Your task to perform on an android device: Set an alarm for 11am Image 0: 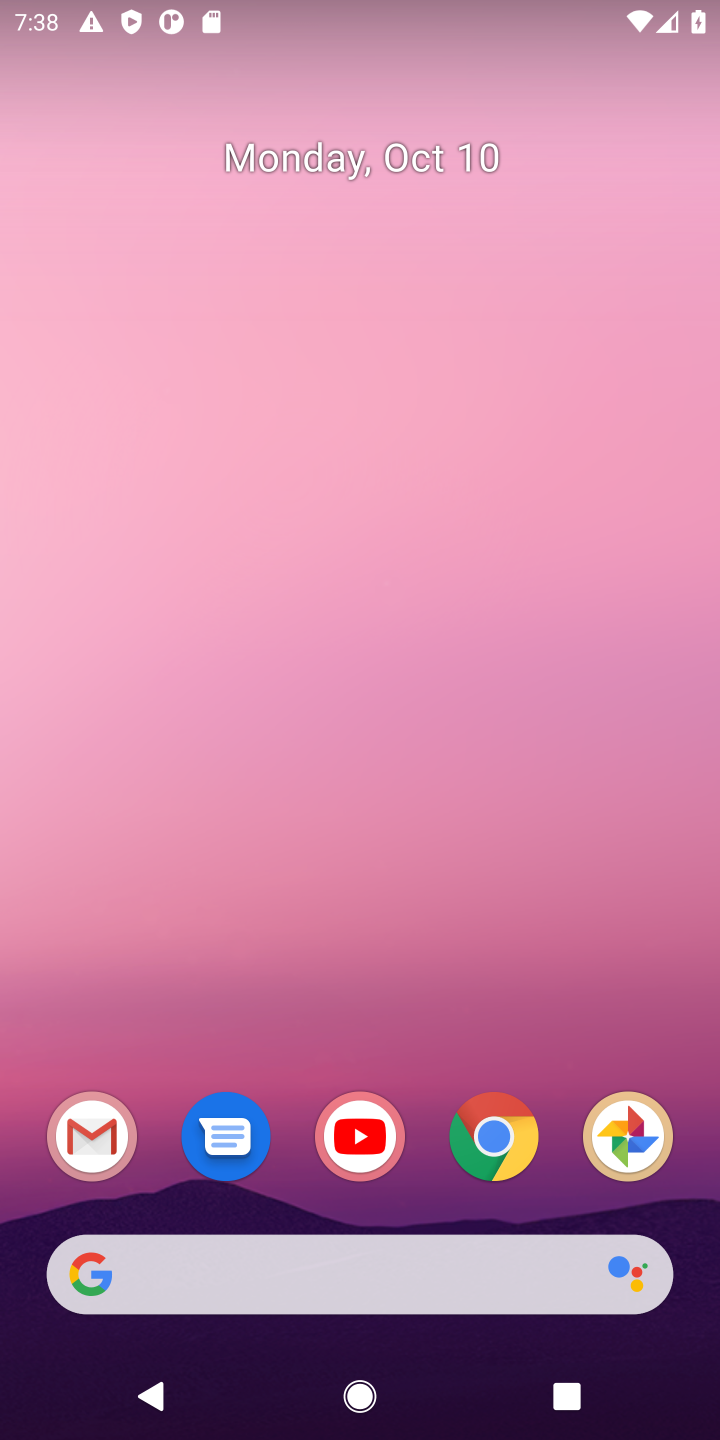
Step 0: drag from (443, 1228) to (381, 9)
Your task to perform on an android device: Set an alarm for 11am Image 1: 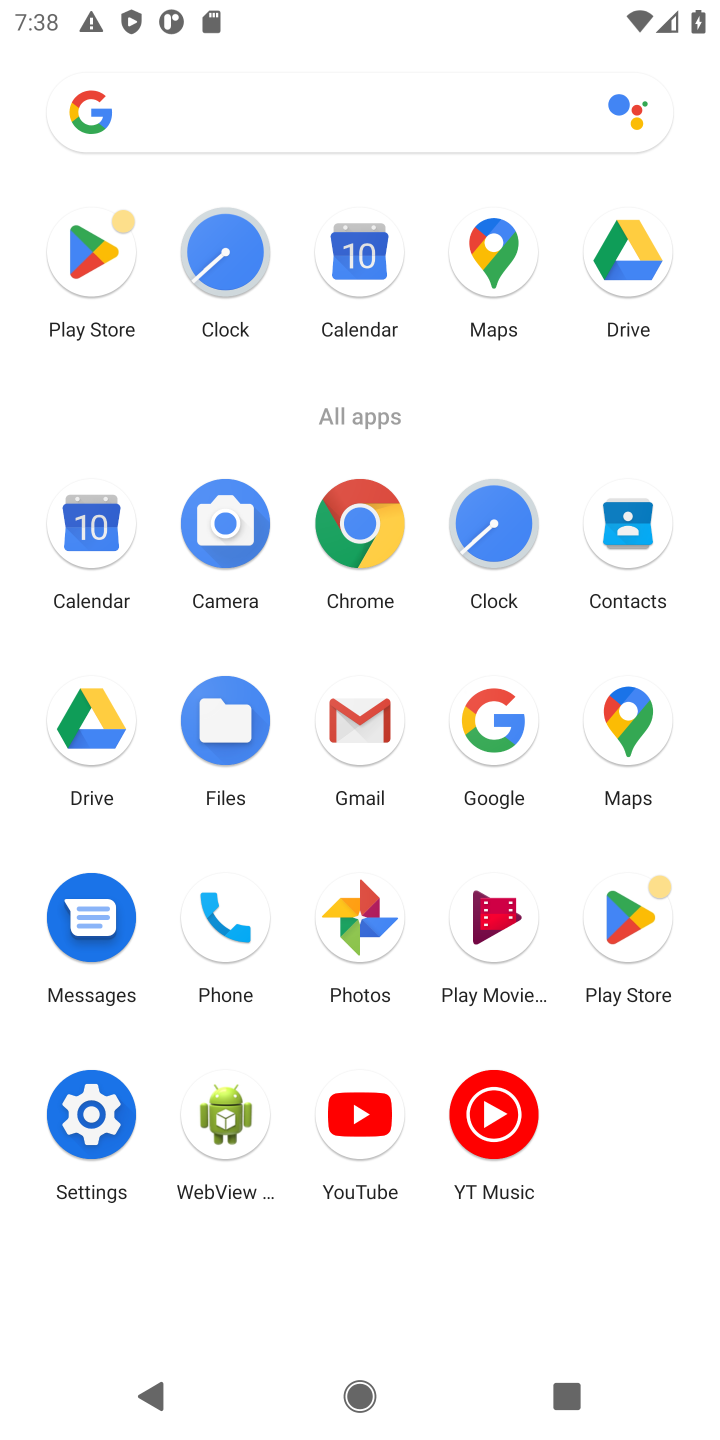
Step 1: click (485, 522)
Your task to perform on an android device: Set an alarm for 11am Image 2: 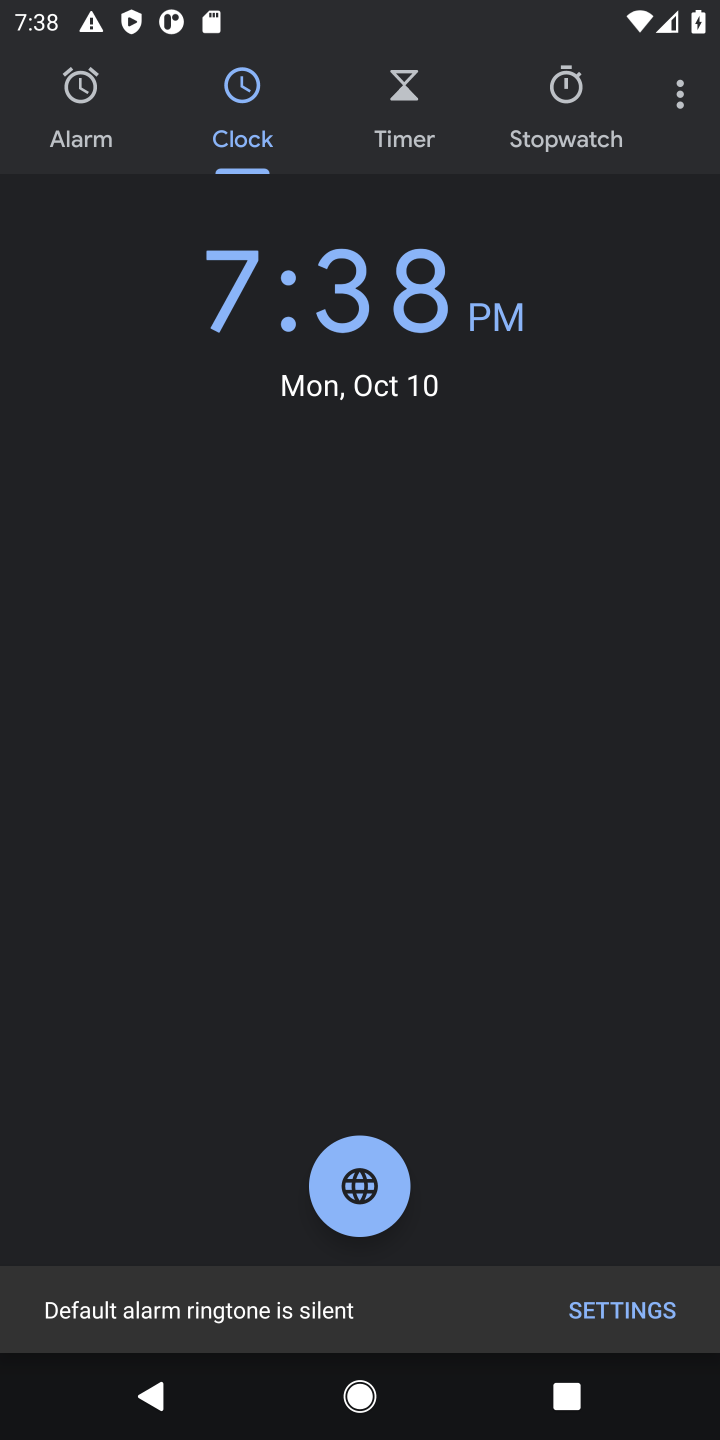
Step 2: click (83, 78)
Your task to perform on an android device: Set an alarm for 11am Image 3: 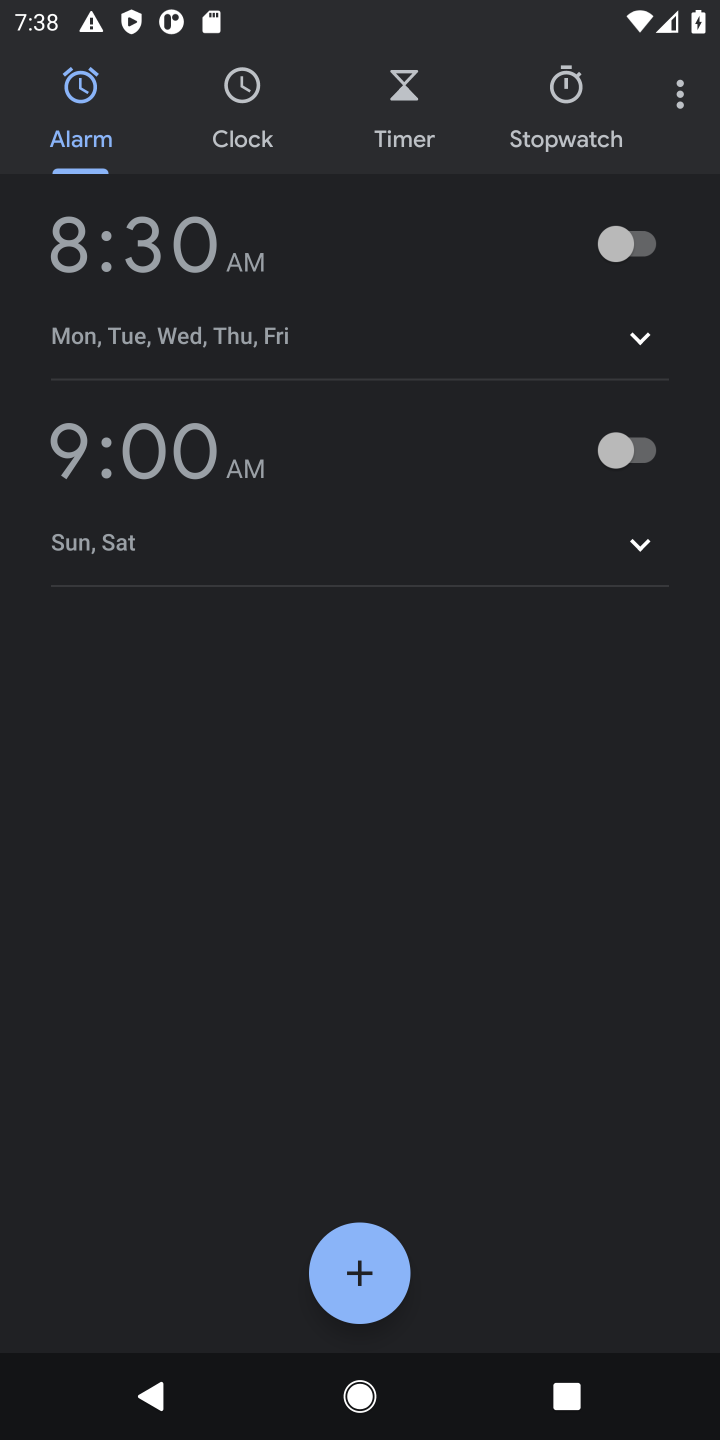
Step 3: click (362, 1271)
Your task to perform on an android device: Set an alarm for 11am Image 4: 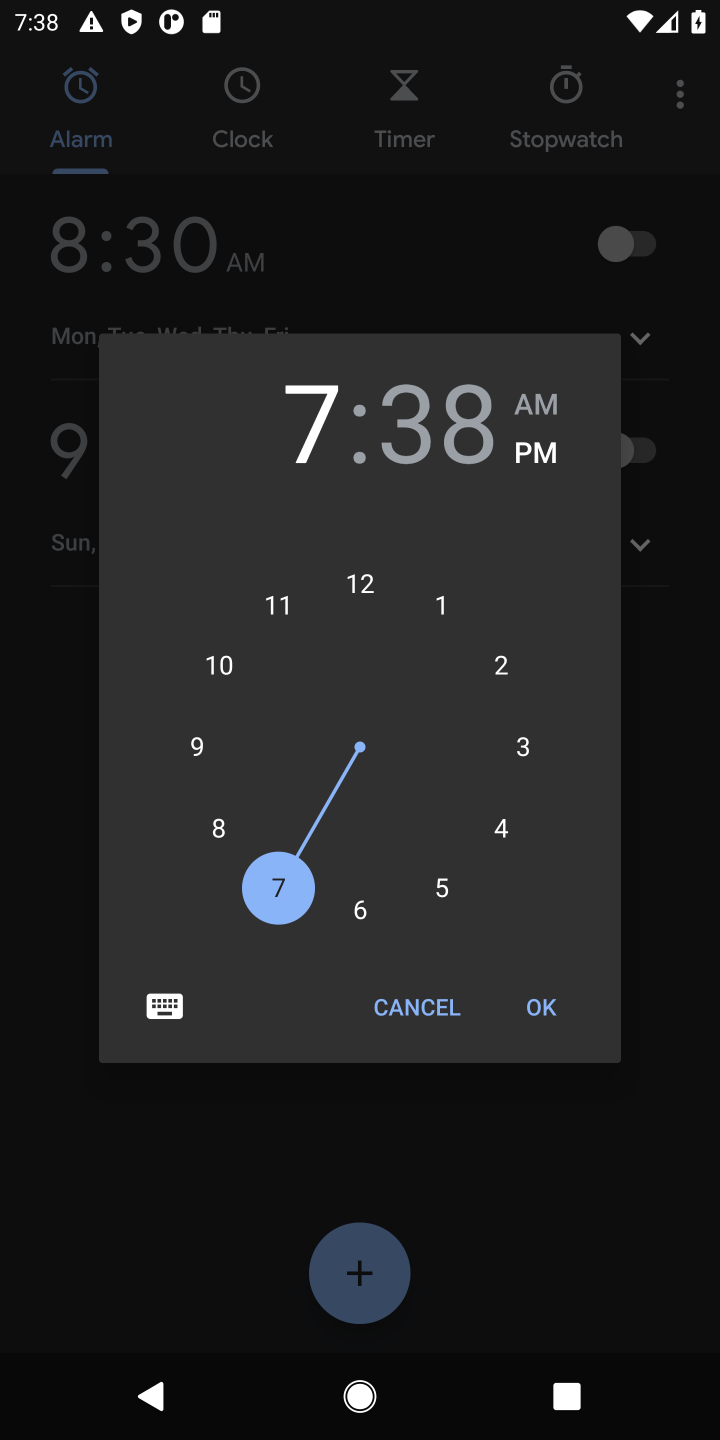
Step 4: click (373, 577)
Your task to perform on an android device: Set an alarm for 11am Image 5: 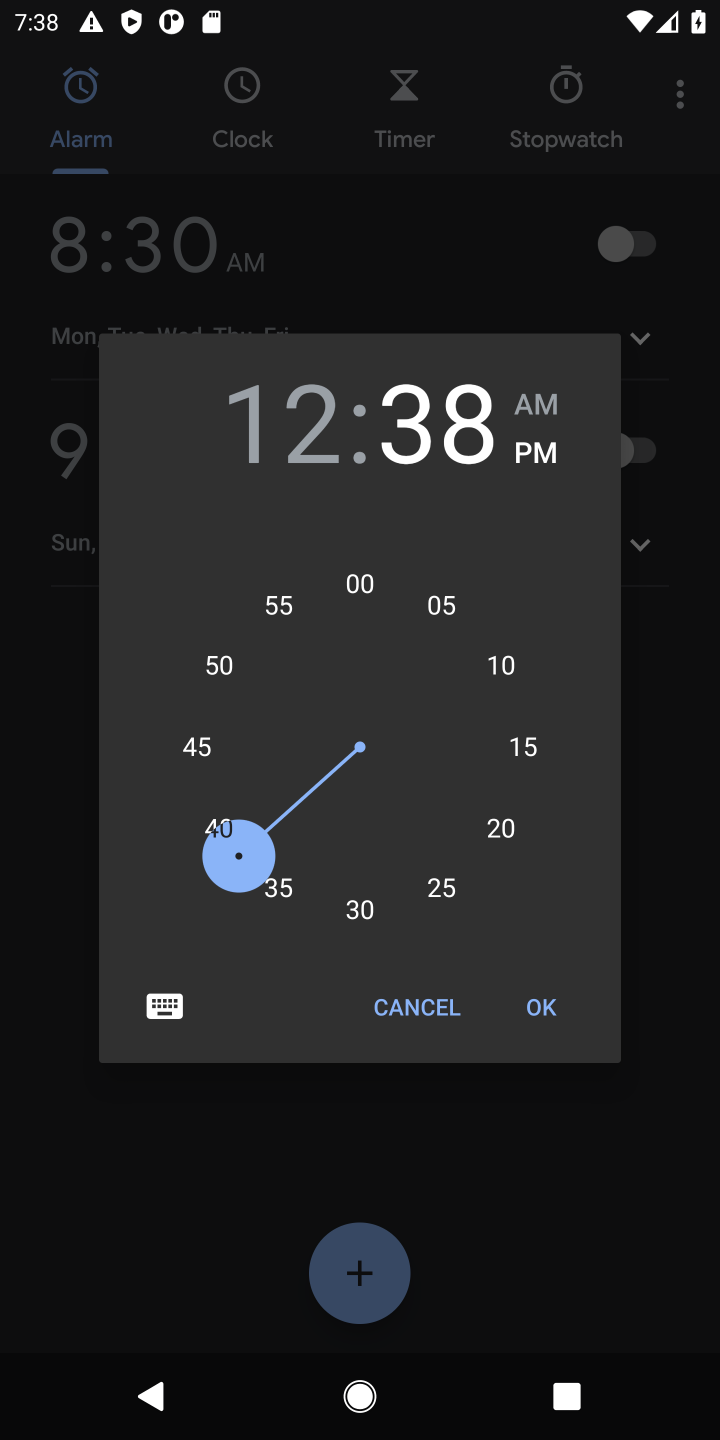
Step 5: click (550, 1003)
Your task to perform on an android device: Set an alarm for 11am Image 6: 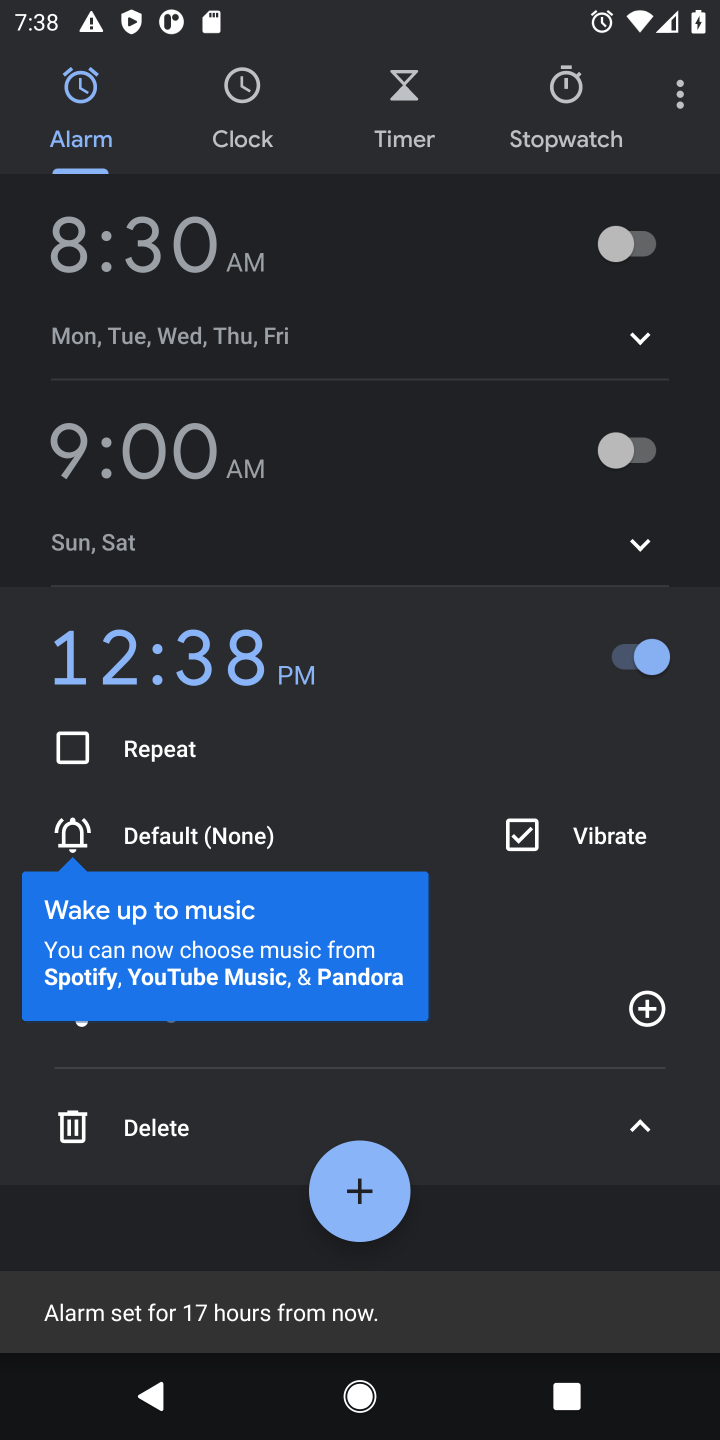
Step 6: task complete